Your task to perform on an android device: change the upload size in google photos Image 0: 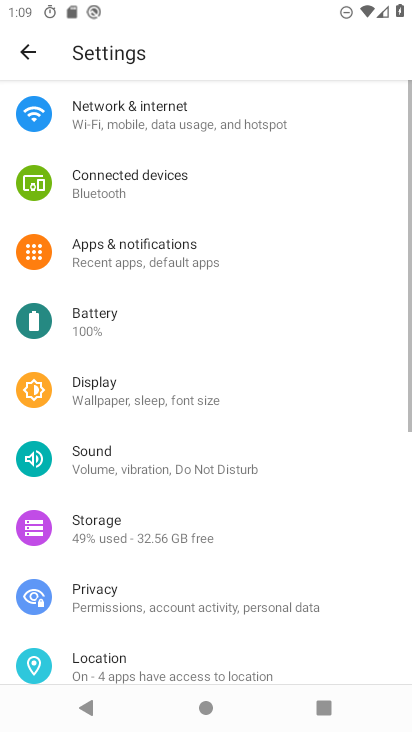
Step 0: press home button
Your task to perform on an android device: change the upload size in google photos Image 1: 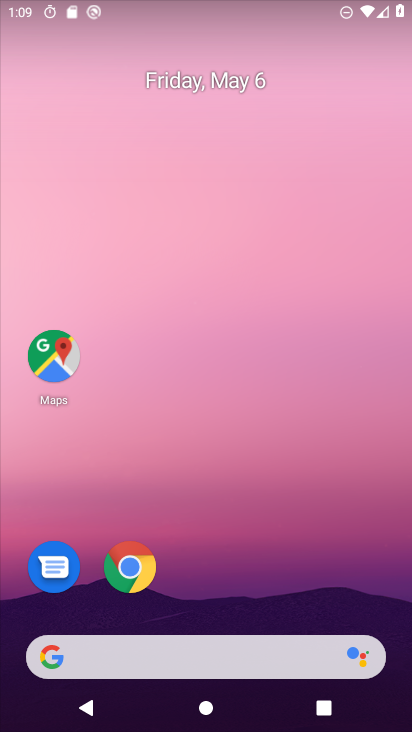
Step 1: drag from (245, 698) to (135, 324)
Your task to perform on an android device: change the upload size in google photos Image 2: 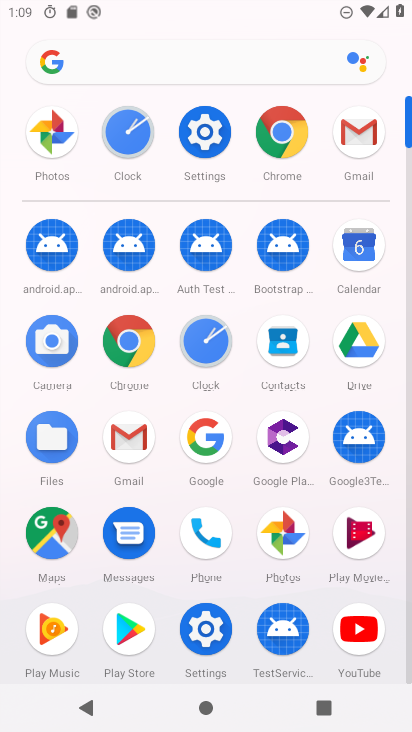
Step 2: click (268, 536)
Your task to perform on an android device: change the upload size in google photos Image 3: 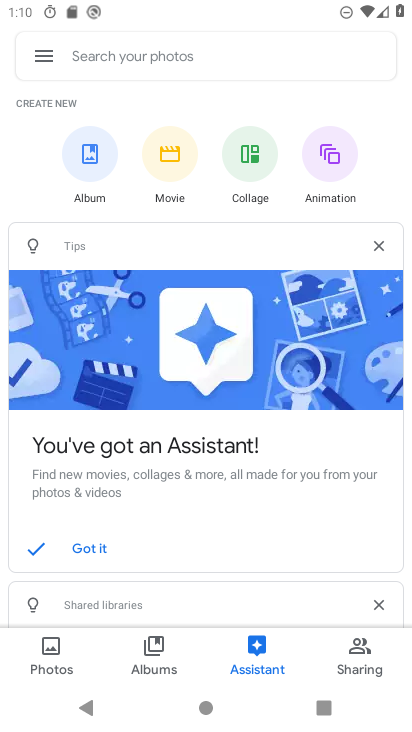
Step 3: click (44, 57)
Your task to perform on an android device: change the upload size in google photos Image 4: 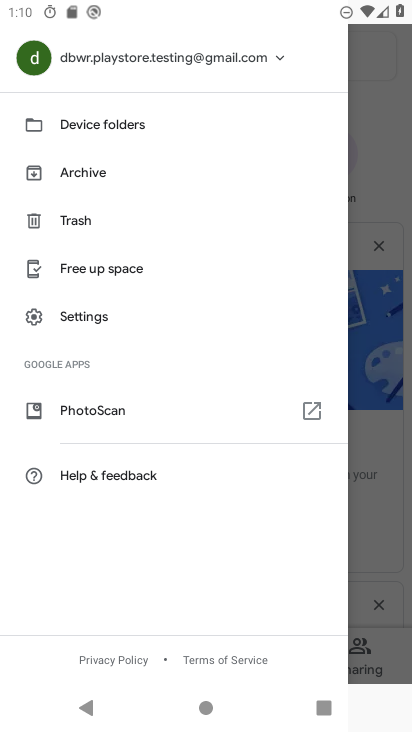
Step 4: click (103, 322)
Your task to perform on an android device: change the upload size in google photos Image 5: 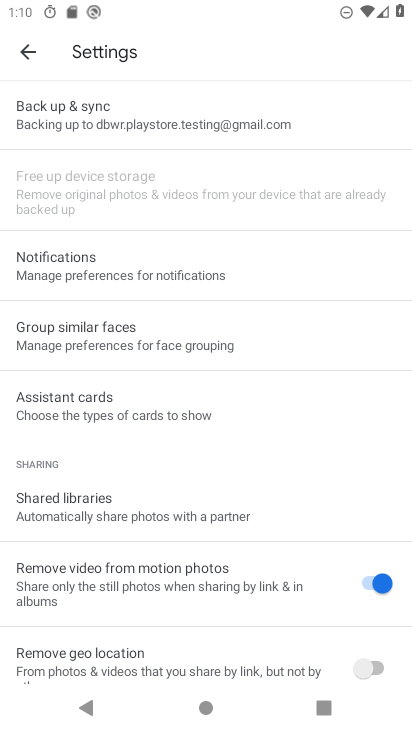
Step 5: click (120, 124)
Your task to perform on an android device: change the upload size in google photos Image 6: 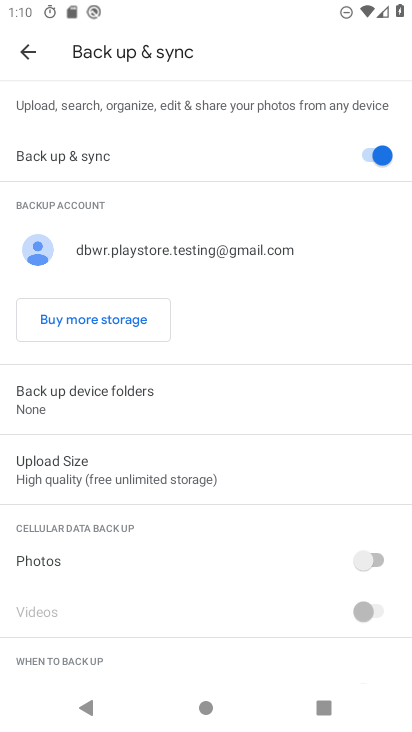
Step 6: click (131, 490)
Your task to perform on an android device: change the upload size in google photos Image 7: 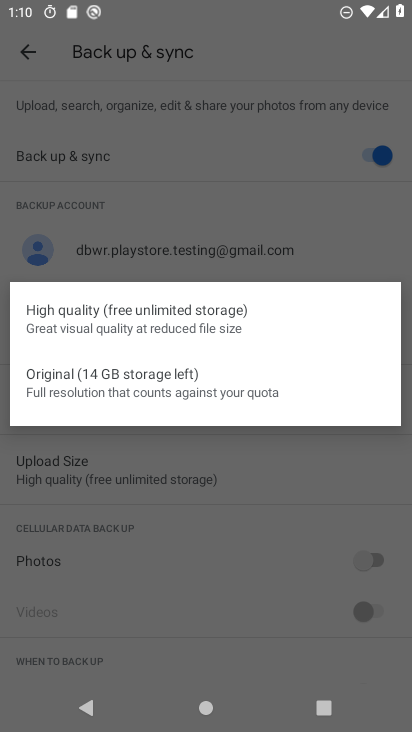
Step 7: task complete